Your task to perform on an android device: Add "alienware aurora" to the cart on newegg.com, then select checkout. Image 0: 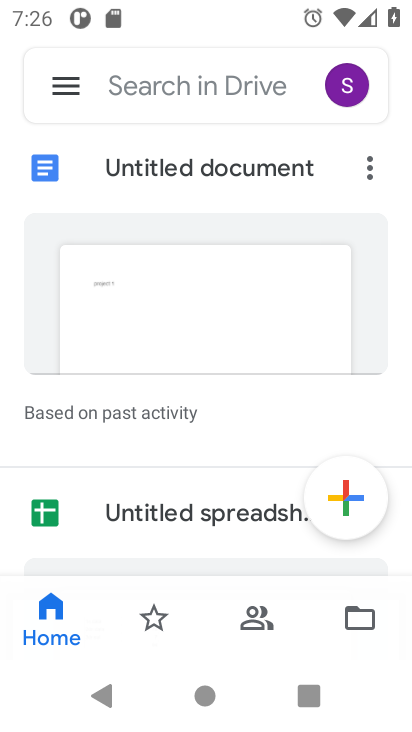
Step 0: press home button
Your task to perform on an android device: Add "alienware aurora" to the cart on newegg.com, then select checkout. Image 1: 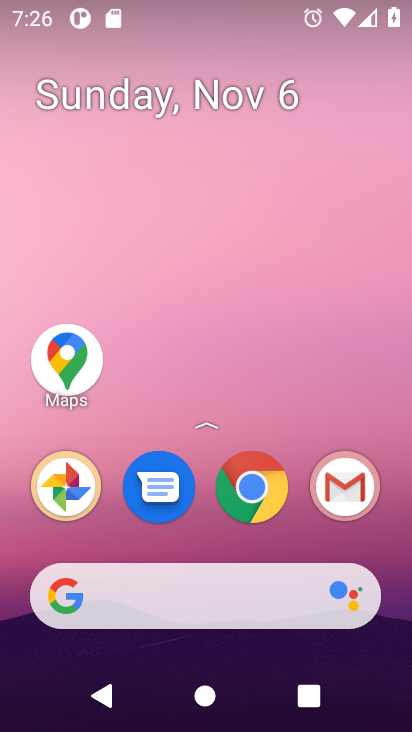
Step 1: click (253, 487)
Your task to perform on an android device: Add "alienware aurora" to the cart on newegg.com, then select checkout. Image 2: 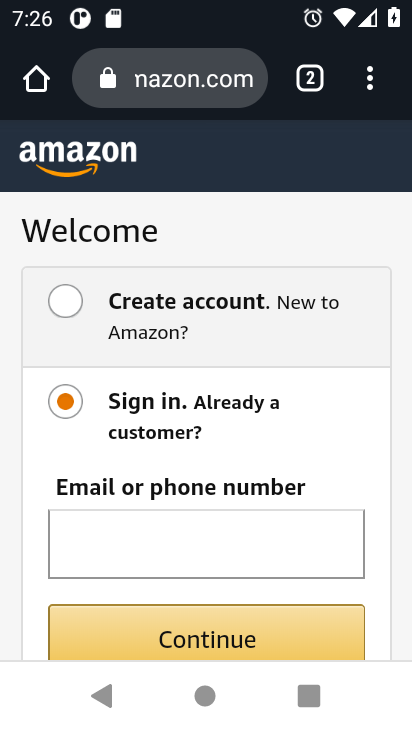
Step 2: click (185, 91)
Your task to perform on an android device: Add "alienware aurora" to the cart on newegg.com, then select checkout. Image 3: 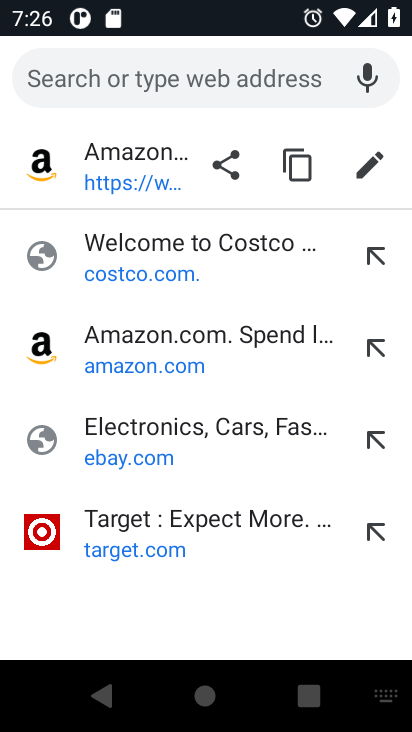
Step 3: type "newegg"
Your task to perform on an android device: Add "alienware aurora" to the cart on newegg.com, then select checkout. Image 4: 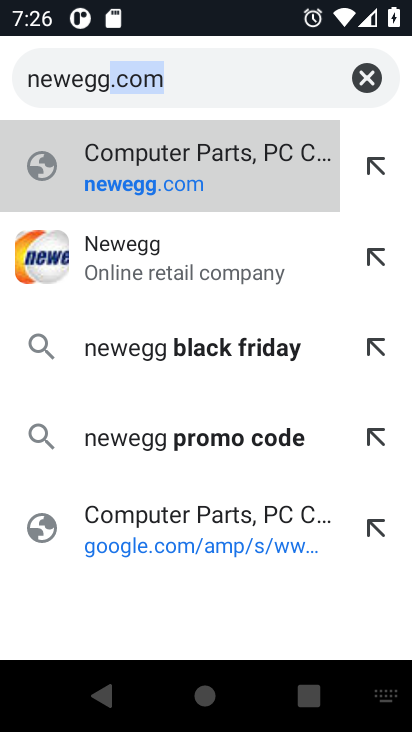
Step 4: click (187, 196)
Your task to perform on an android device: Add "alienware aurora" to the cart on newegg.com, then select checkout. Image 5: 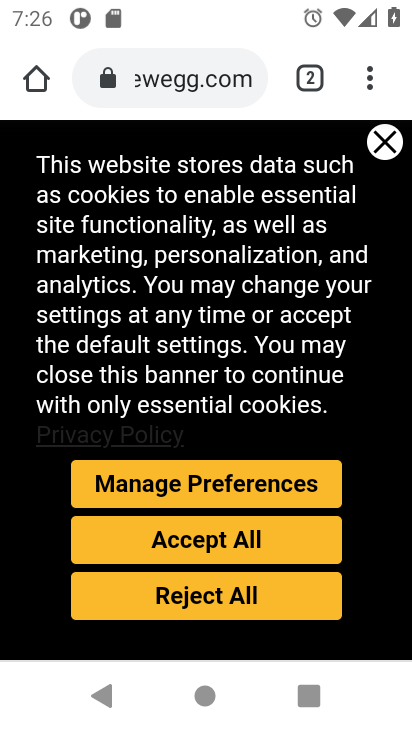
Step 5: click (145, 525)
Your task to perform on an android device: Add "alienware aurora" to the cart on newegg.com, then select checkout. Image 6: 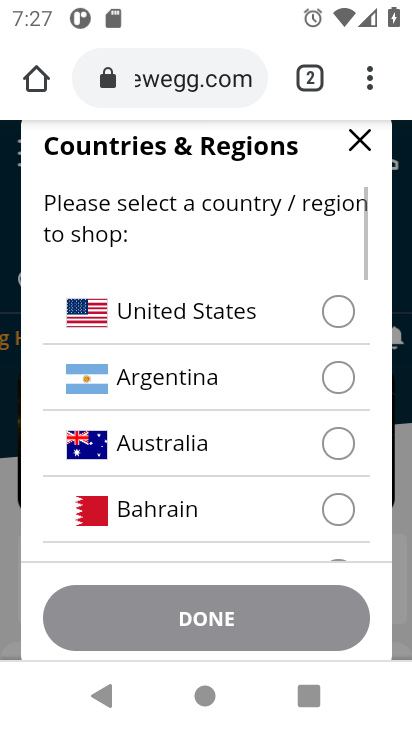
Step 6: click (338, 325)
Your task to perform on an android device: Add "alienware aurora" to the cart on newegg.com, then select checkout. Image 7: 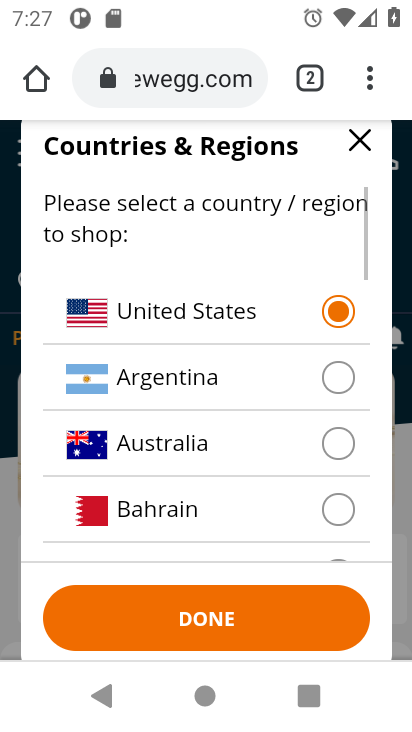
Step 7: click (267, 616)
Your task to perform on an android device: Add "alienware aurora" to the cart on newegg.com, then select checkout. Image 8: 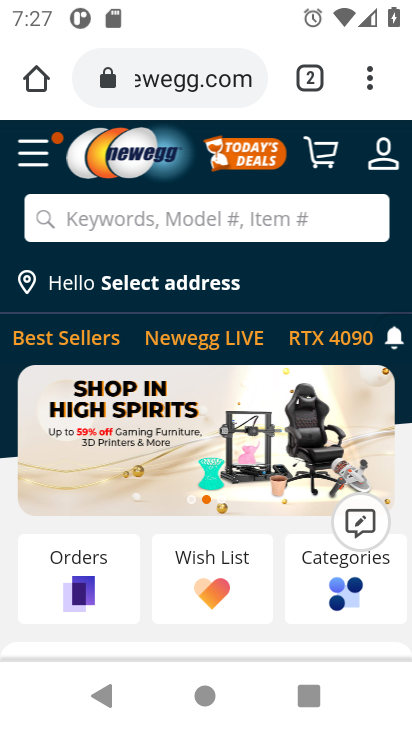
Step 8: click (83, 221)
Your task to perform on an android device: Add "alienware aurora" to the cart on newegg.com, then select checkout. Image 9: 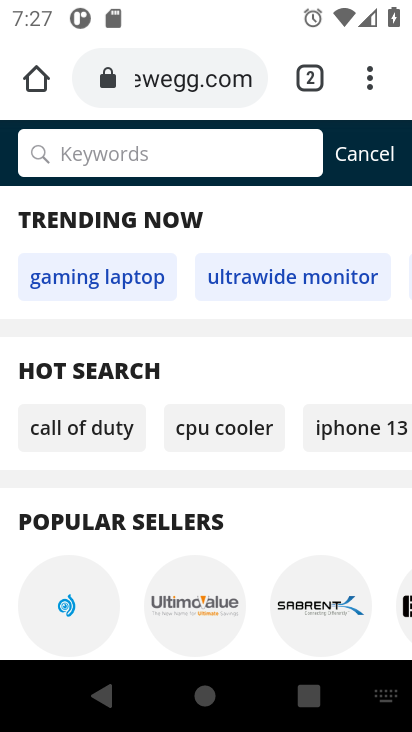
Step 9: type "alienware aurora"
Your task to perform on an android device: Add "alienware aurora" to the cart on newegg.com, then select checkout. Image 10: 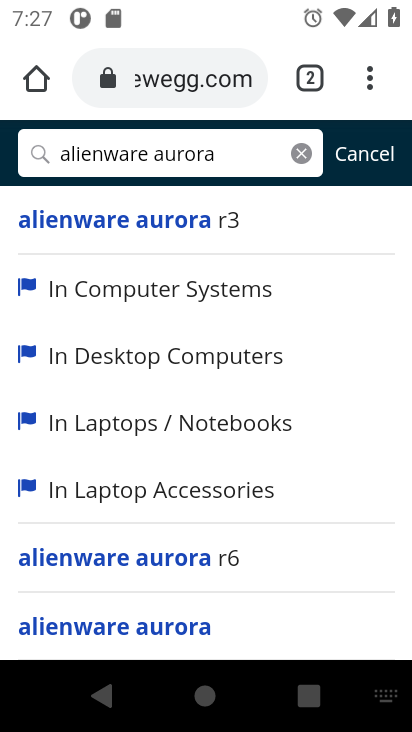
Step 10: click (124, 295)
Your task to perform on an android device: Add "alienware aurora" to the cart on newegg.com, then select checkout. Image 11: 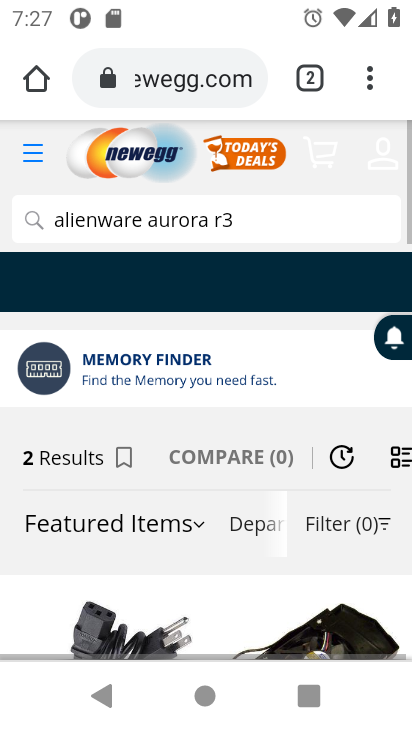
Step 11: click (124, 295)
Your task to perform on an android device: Add "alienware aurora" to the cart on newegg.com, then select checkout. Image 12: 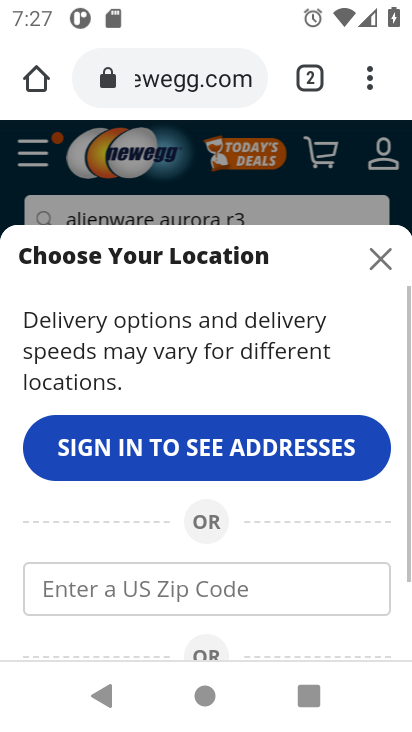
Step 12: click (381, 248)
Your task to perform on an android device: Add "alienware aurora" to the cart on newegg.com, then select checkout. Image 13: 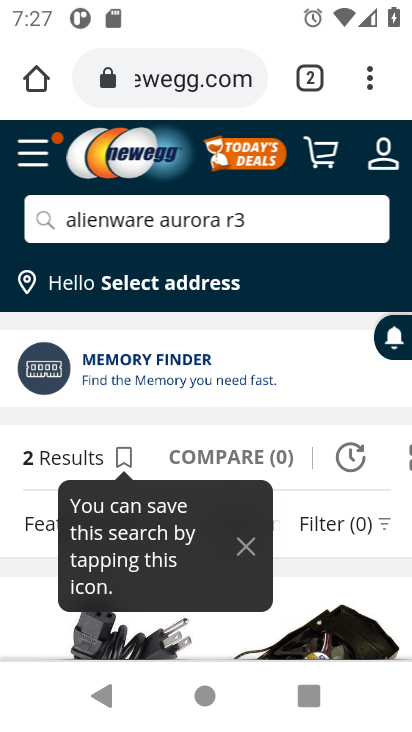
Step 13: task complete